Your task to perform on an android device: Go to network settings Image 0: 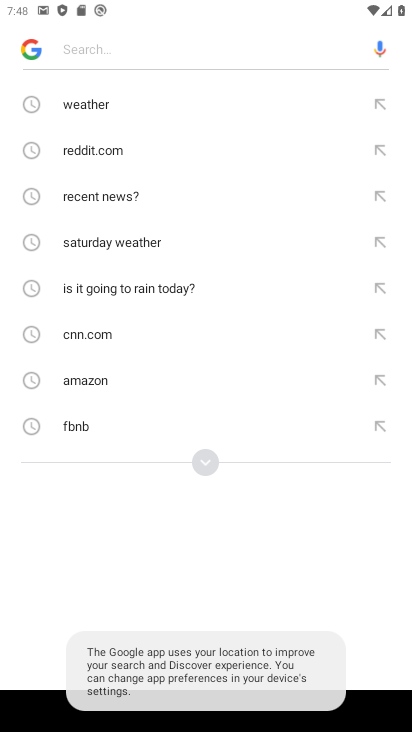
Step 0: press back button
Your task to perform on an android device: Go to network settings Image 1: 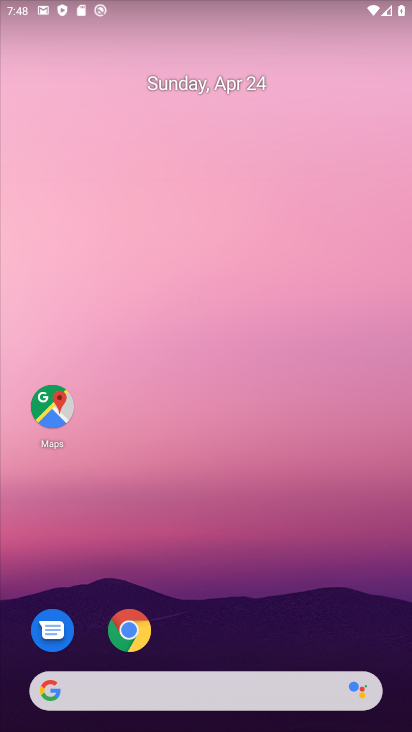
Step 1: drag from (277, 535) to (235, 4)
Your task to perform on an android device: Go to network settings Image 2: 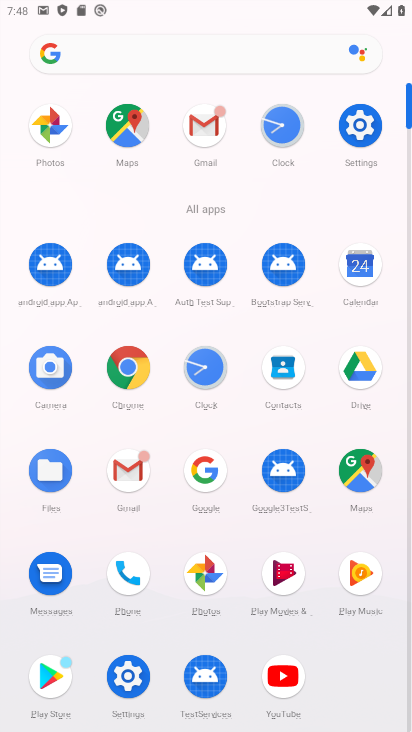
Step 2: drag from (2, 543) to (6, 326)
Your task to perform on an android device: Go to network settings Image 3: 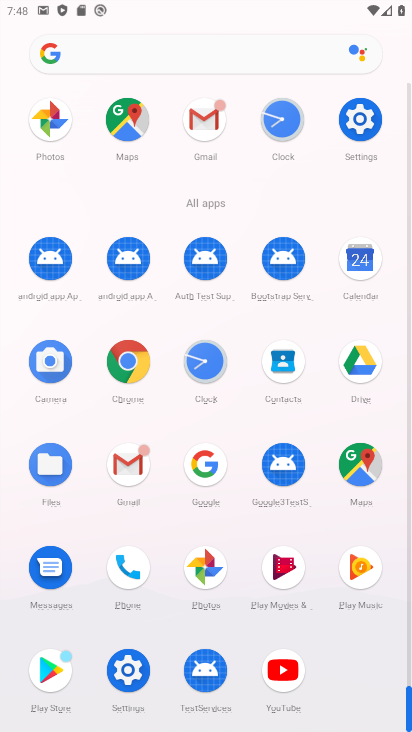
Step 3: click (127, 669)
Your task to perform on an android device: Go to network settings Image 4: 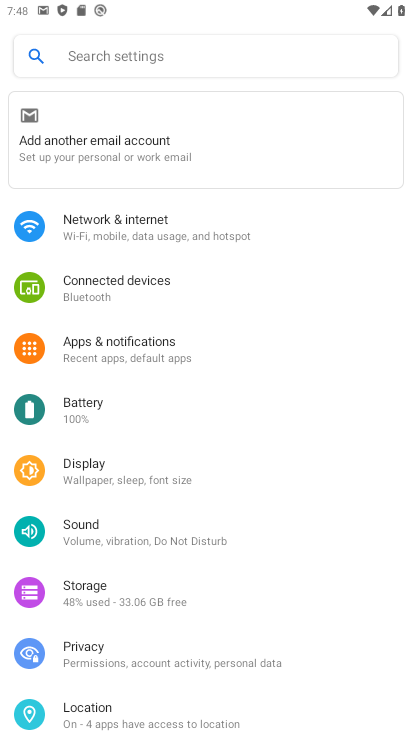
Step 4: click (125, 219)
Your task to perform on an android device: Go to network settings Image 5: 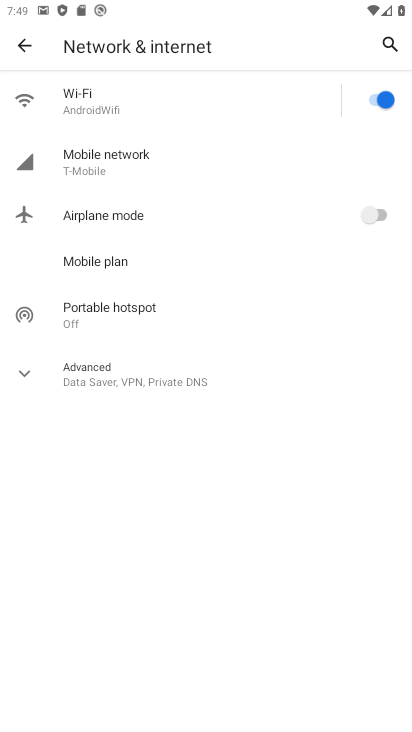
Step 5: click (21, 368)
Your task to perform on an android device: Go to network settings Image 6: 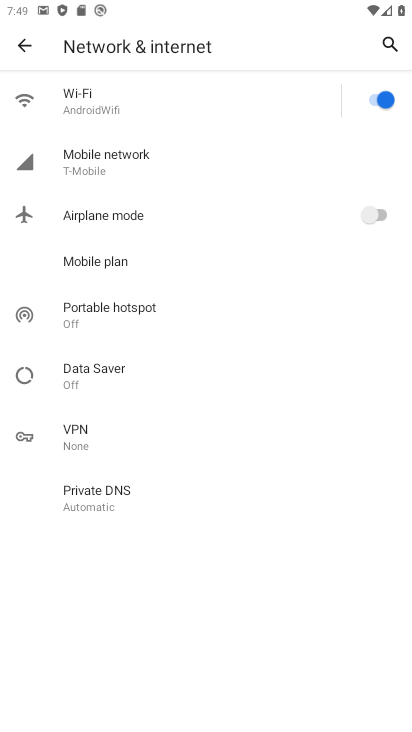
Step 6: task complete